Your task to perform on an android device: Show me recent news Image 0: 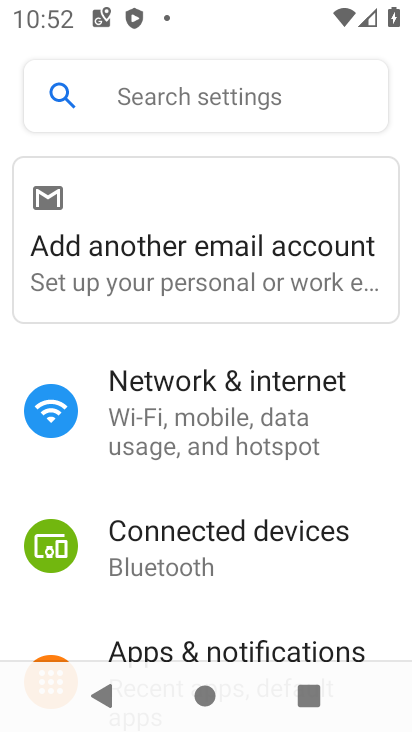
Step 0: press home button
Your task to perform on an android device: Show me recent news Image 1: 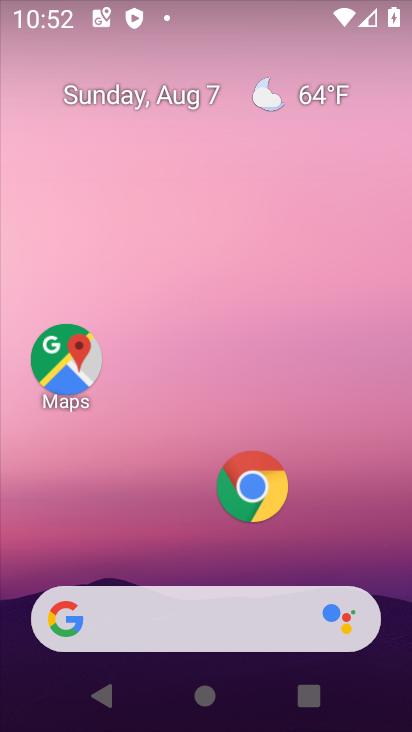
Step 1: click (224, 631)
Your task to perform on an android device: Show me recent news Image 2: 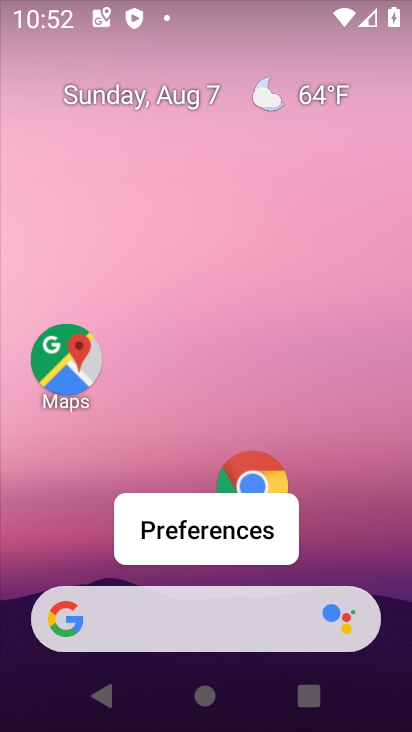
Step 2: click (130, 615)
Your task to perform on an android device: Show me recent news Image 3: 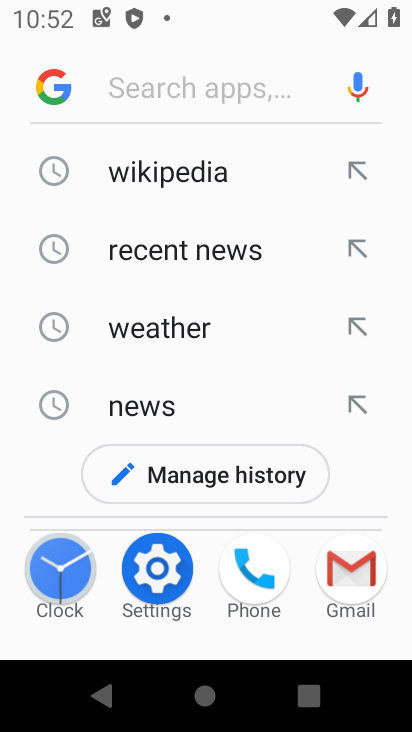
Step 3: click (241, 258)
Your task to perform on an android device: Show me recent news Image 4: 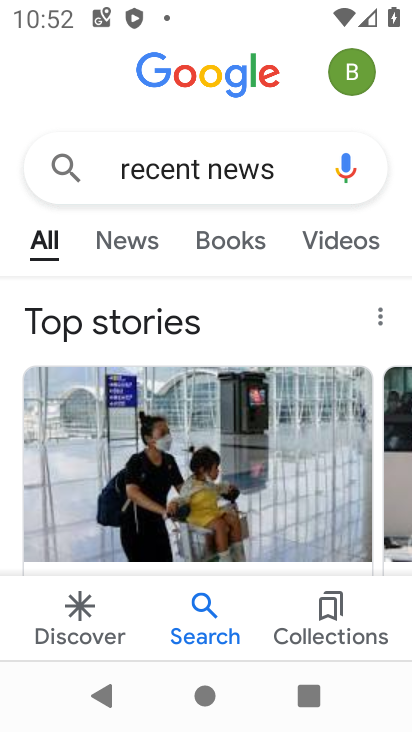
Step 4: task complete